Your task to perform on an android device: change the clock style Image 0: 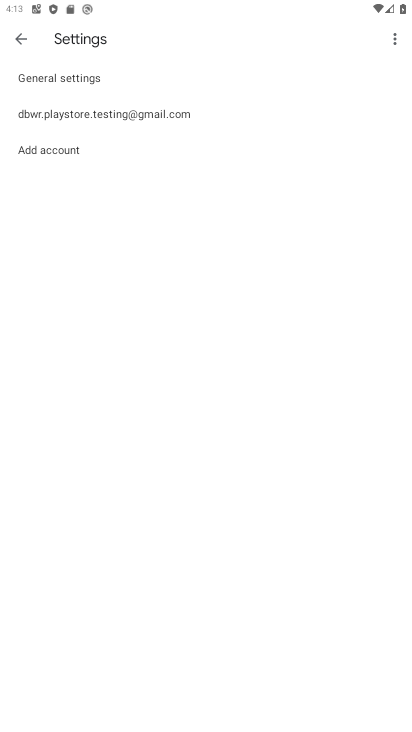
Step 0: press home button
Your task to perform on an android device: change the clock style Image 1: 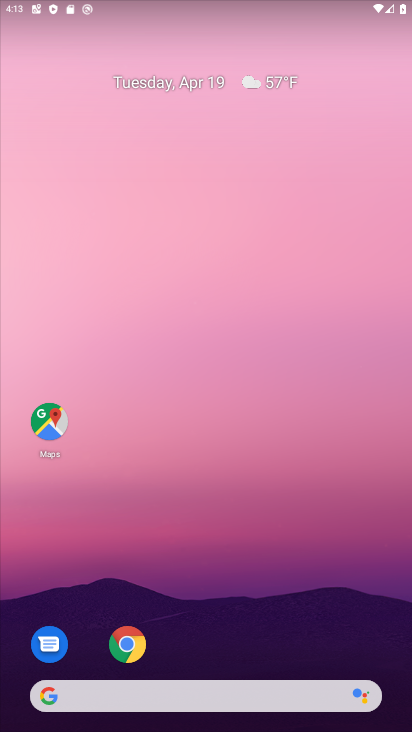
Step 1: drag from (289, 615) to (350, 53)
Your task to perform on an android device: change the clock style Image 2: 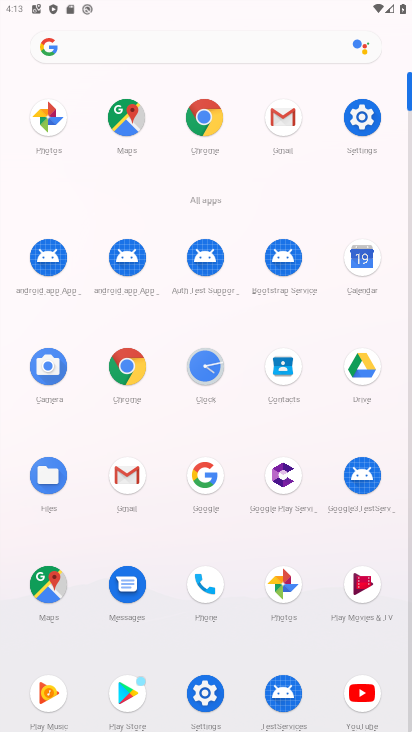
Step 2: click (224, 376)
Your task to perform on an android device: change the clock style Image 3: 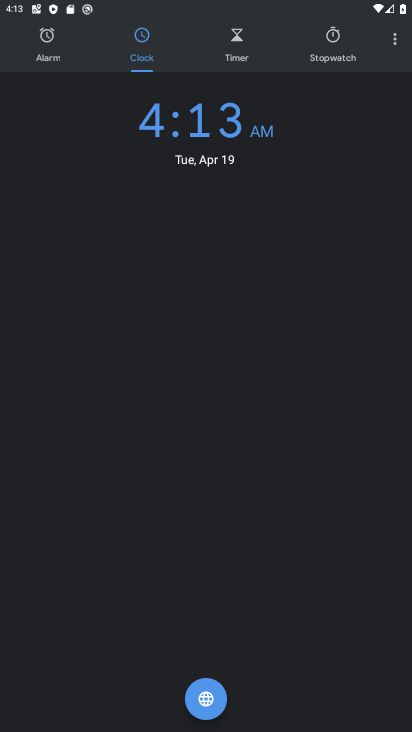
Step 3: click (409, 42)
Your task to perform on an android device: change the clock style Image 4: 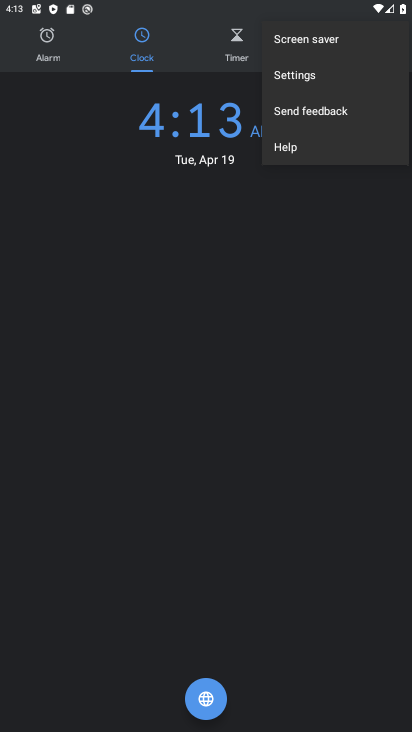
Step 4: click (278, 75)
Your task to perform on an android device: change the clock style Image 5: 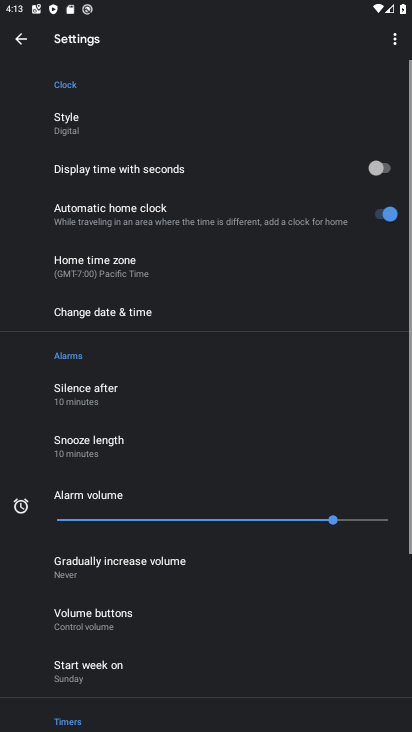
Step 5: click (60, 111)
Your task to perform on an android device: change the clock style Image 6: 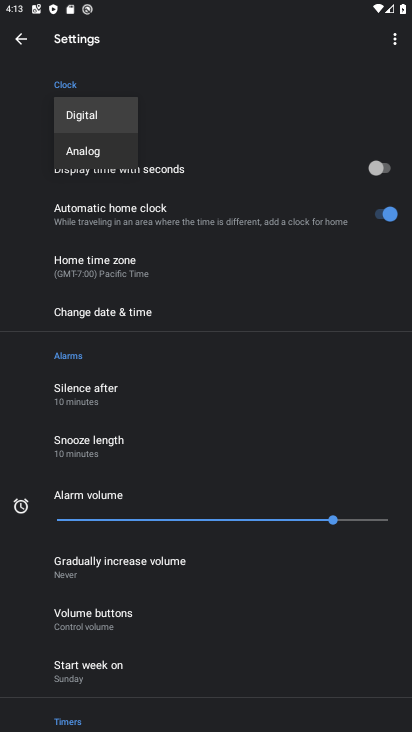
Step 6: click (223, 108)
Your task to perform on an android device: change the clock style Image 7: 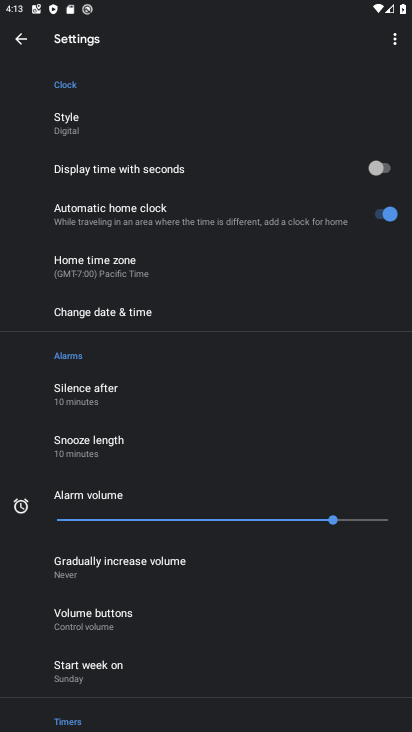
Step 7: click (66, 115)
Your task to perform on an android device: change the clock style Image 8: 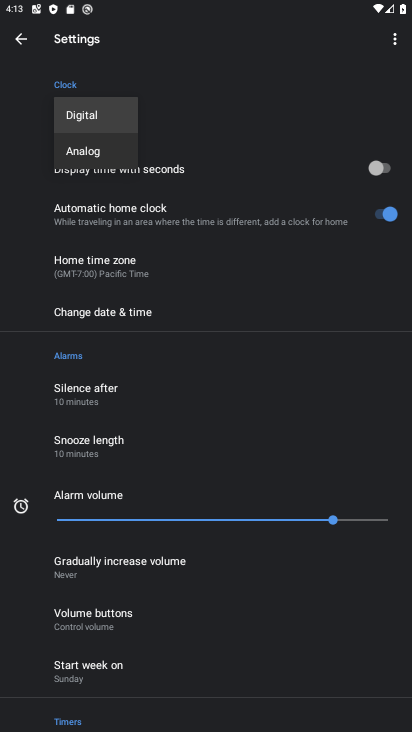
Step 8: click (283, 115)
Your task to perform on an android device: change the clock style Image 9: 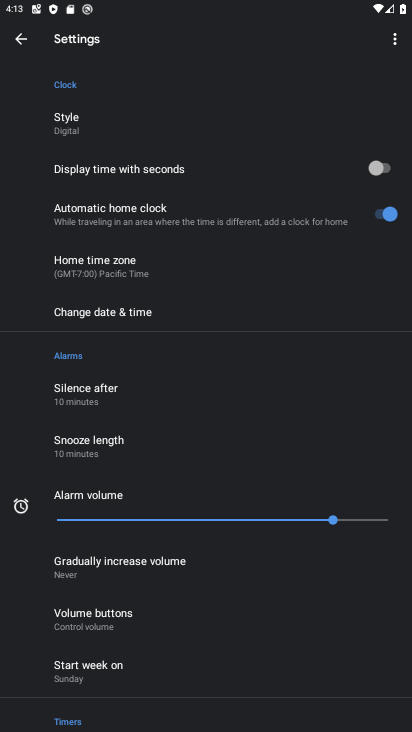
Step 9: click (87, 130)
Your task to perform on an android device: change the clock style Image 10: 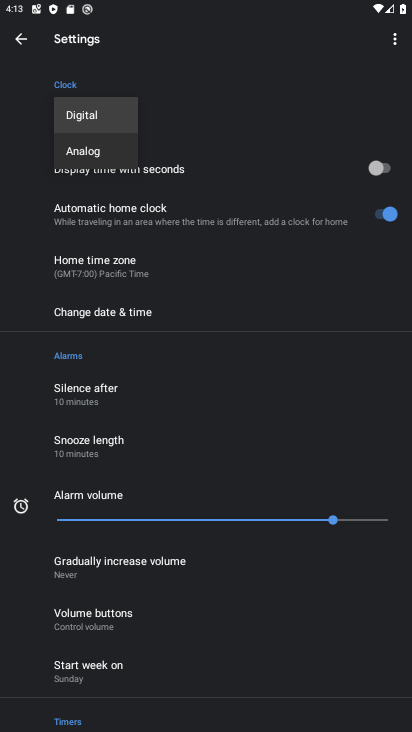
Step 10: click (76, 157)
Your task to perform on an android device: change the clock style Image 11: 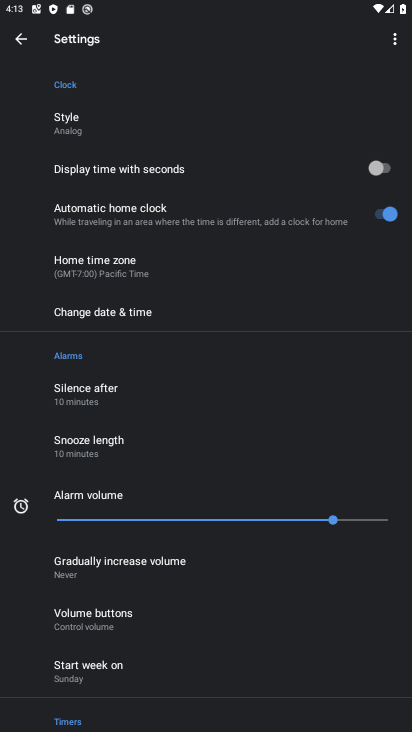
Step 11: task complete